Your task to perform on an android device: Open calendar and show me the second week of next month Image 0: 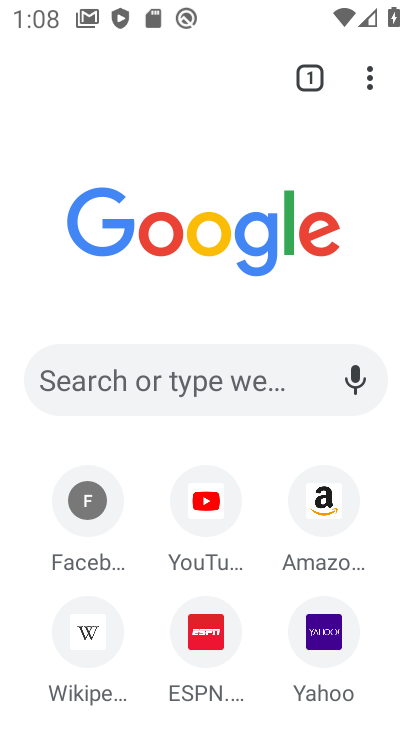
Step 0: press home button
Your task to perform on an android device: Open calendar and show me the second week of next month Image 1: 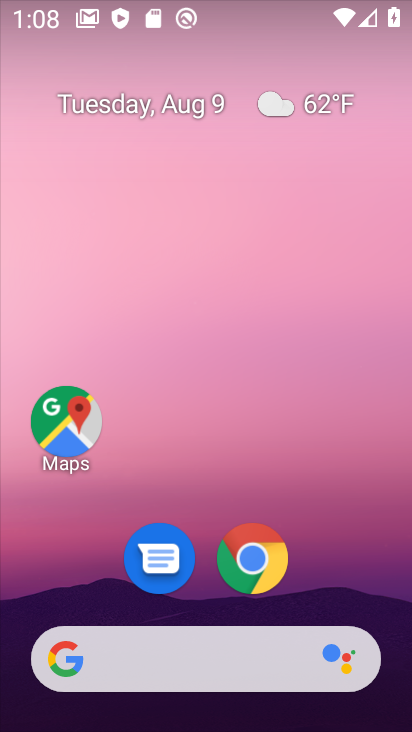
Step 1: drag from (364, 589) to (296, 144)
Your task to perform on an android device: Open calendar and show me the second week of next month Image 2: 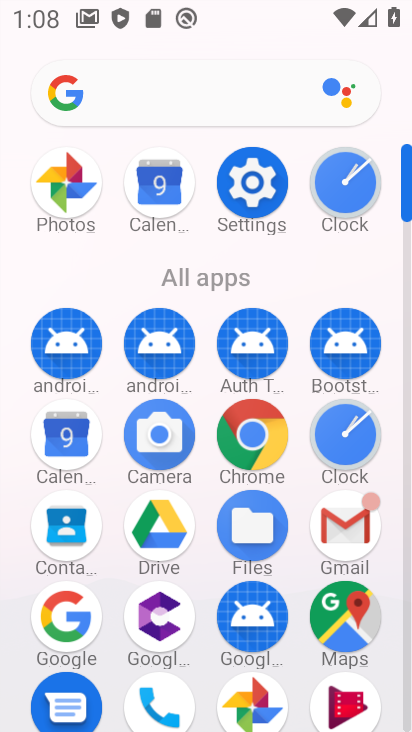
Step 2: click (72, 442)
Your task to perform on an android device: Open calendar and show me the second week of next month Image 3: 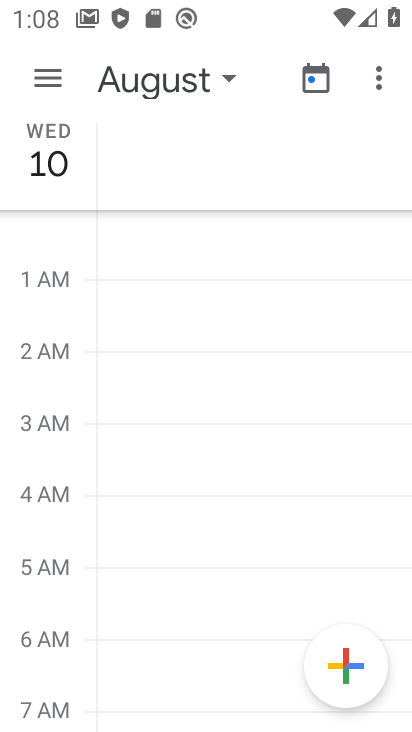
Step 3: click (59, 72)
Your task to perform on an android device: Open calendar and show me the second week of next month Image 4: 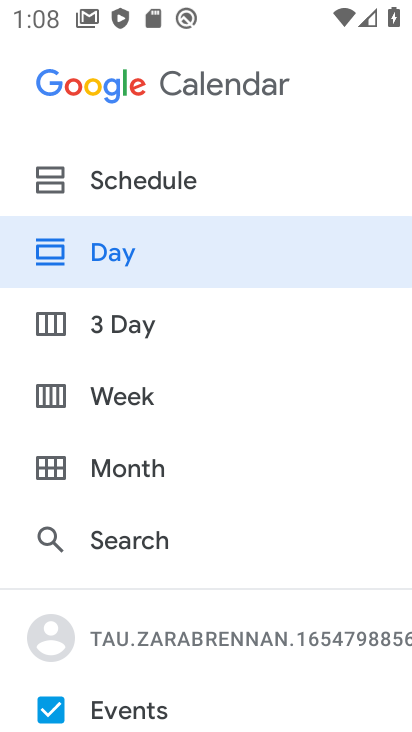
Step 4: click (183, 392)
Your task to perform on an android device: Open calendar and show me the second week of next month Image 5: 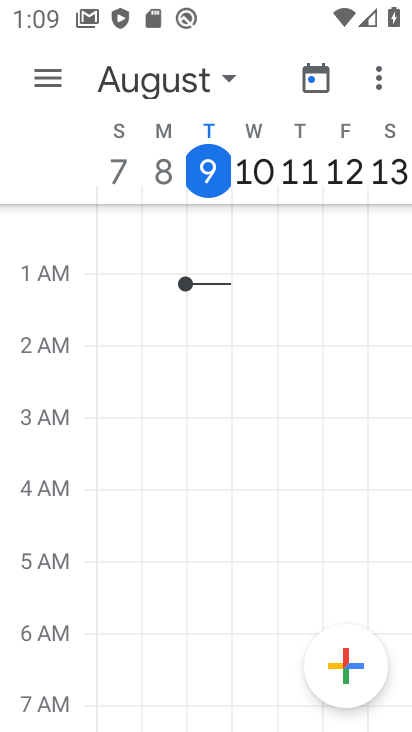
Step 5: click (229, 78)
Your task to perform on an android device: Open calendar and show me the second week of next month Image 6: 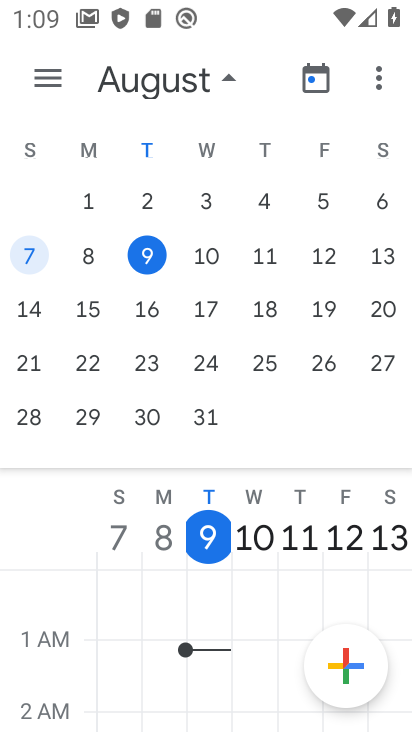
Step 6: drag from (358, 302) to (4, 244)
Your task to perform on an android device: Open calendar and show me the second week of next month Image 7: 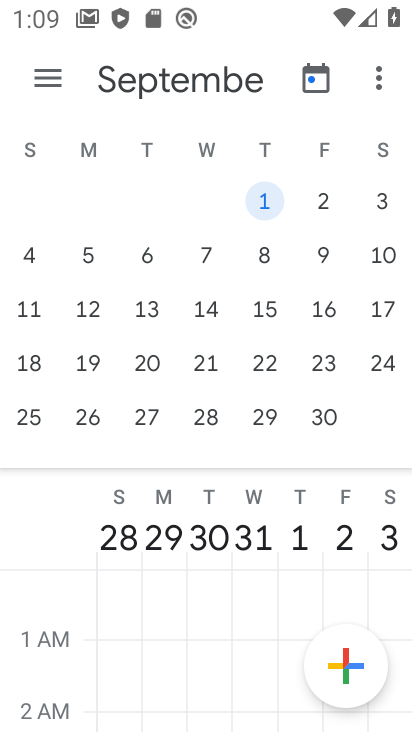
Step 7: click (209, 305)
Your task to perform on an android device: Open calendar and show me the second week of next month Image 8: 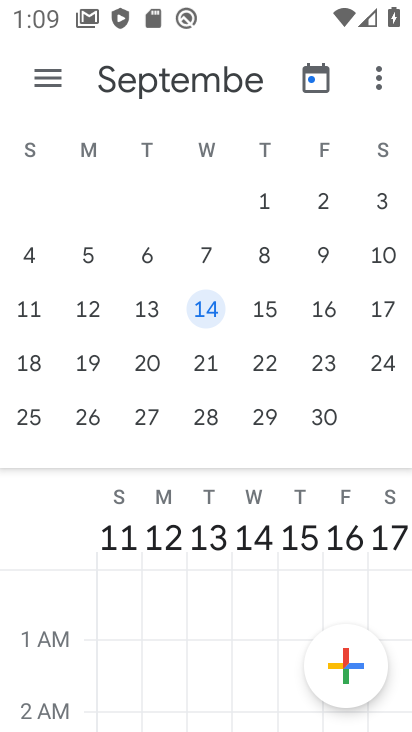
Step 8: drag from (282, 596) to (234, 288)
Your task to perform on an android device: Open calendar and show me the second week of next month Image 9: 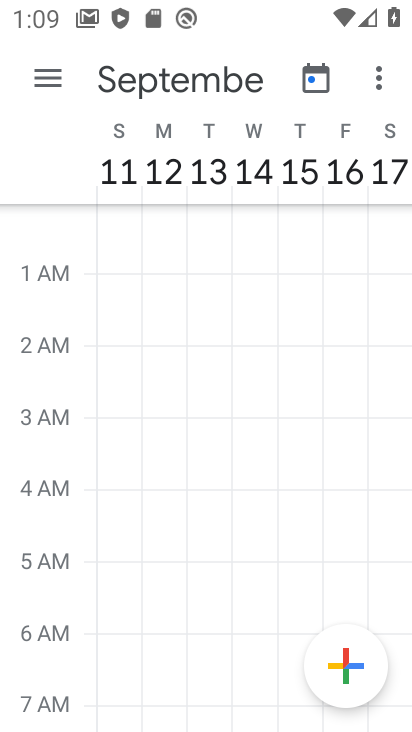
Step 9: drag from (296, 628) to (307, 278)
Your task to perform on an android device: Open calendar and show me the second week of next month Image 10: 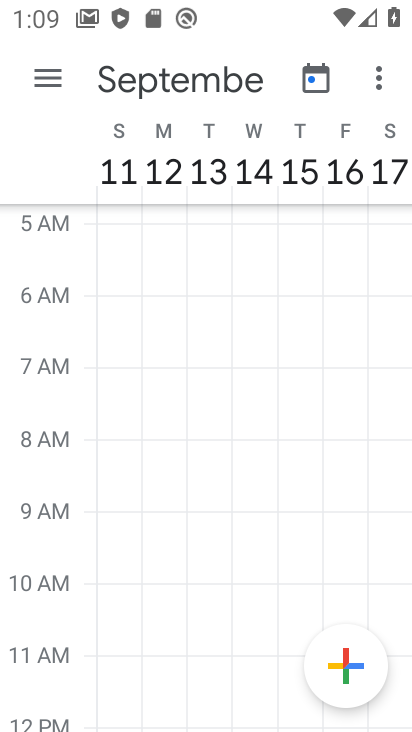
Step 10: click (307, 278)
Your task to perform on an android device: Open calendar and show me the second week of next month Image 11: 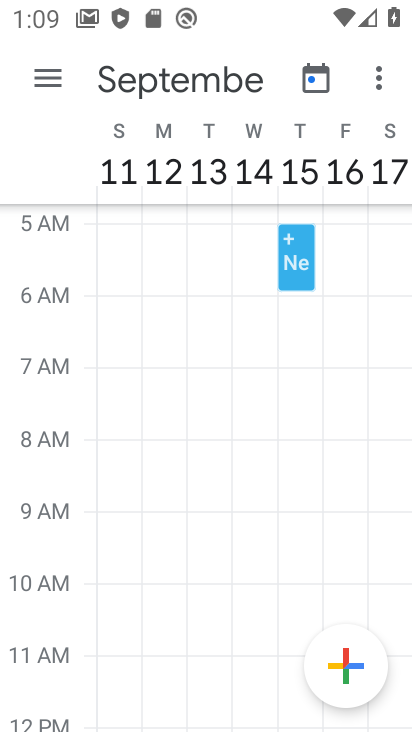
Step 11: task complete